Your task to perform on an android device: Go to battery settings Image 0: 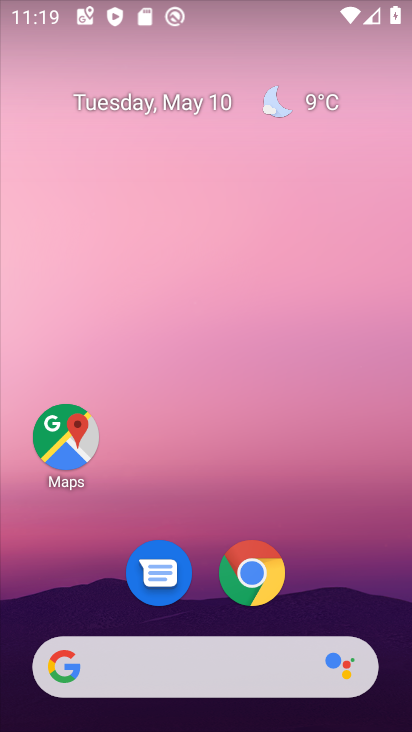
Step 0: drag from (199, 628) to (162, 105)
Your task to perform on an android device: Go to battery settings Image 1: 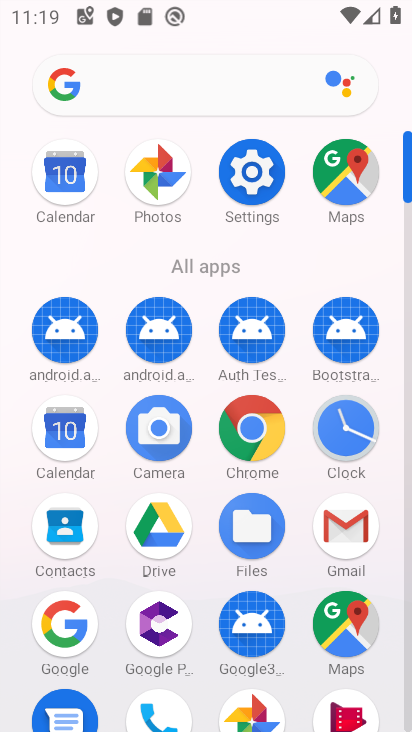
Step 1: click (251, 177)
Your task to perform on an android device: Go to battery settings Image 2: 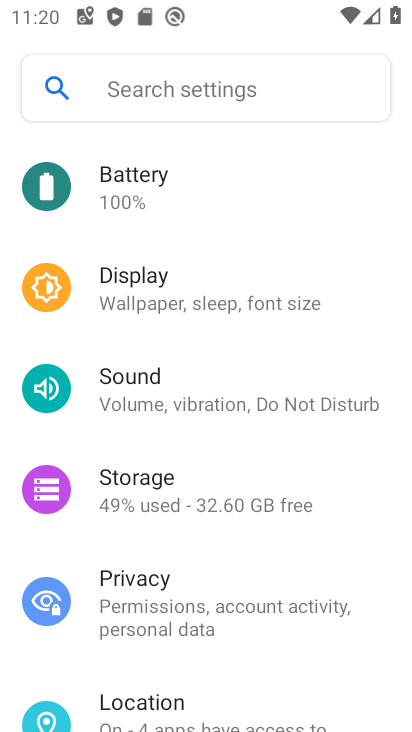
Step 2: drag from (187, 656) to (187, 390)
Your task to perform on an android device: Go to battery settings Image 3: 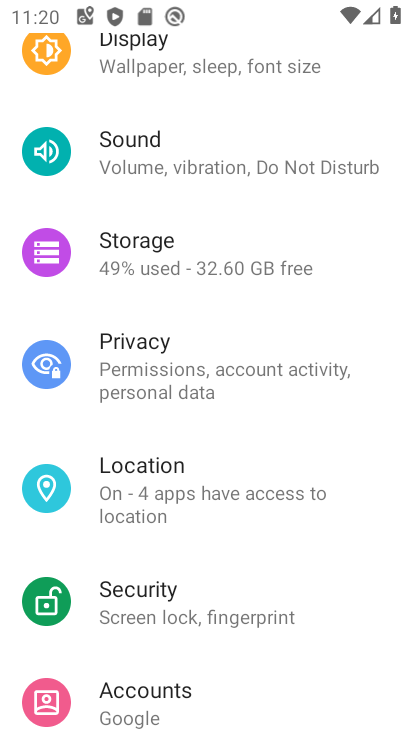
Step 3: drag from (161, 648) to (143, 275)
Your task to perform on an android device: Go to battery settings Image 4: 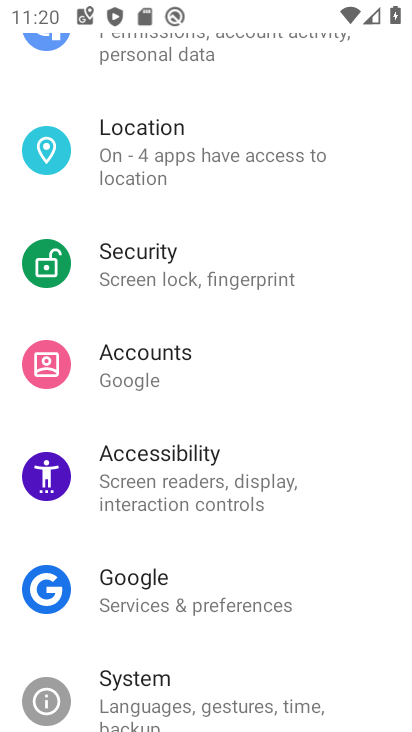
Step 4: drag from (218, 156) to (230, 584)
Your task to perform on an android device: Go to battery settings Image 5: 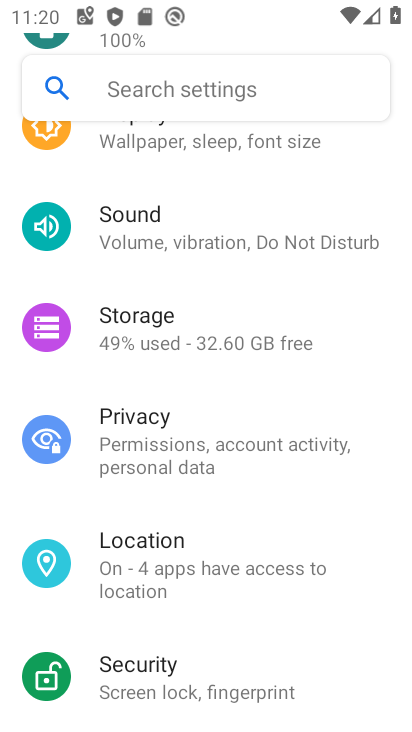
Step 5: drag from (228, 210) to (227, 593)
Your task to perform on an android device: Go to battery settings Image 6: 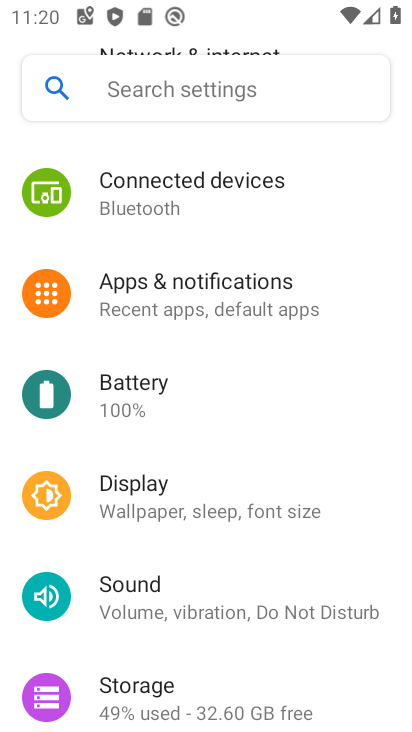
Step 6: click (123, 386)
Your task to perform on an android device: Go to battery settings Image 7: 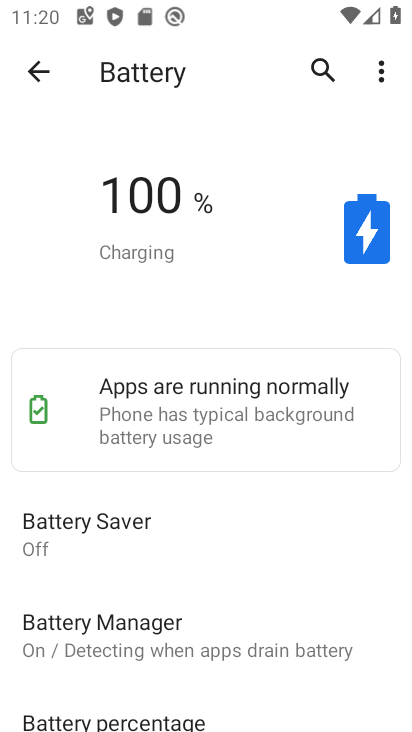
Step 7: task complete